Your task to perform on an android device: refresh tabs in the chrome app Image 0: 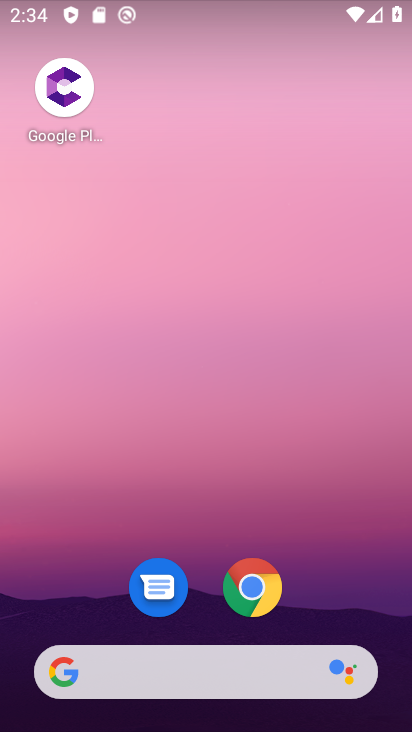
Step 0: click (262, 602)
Your task to perform on an android device: refresh tabs in the chrome app Image 1: 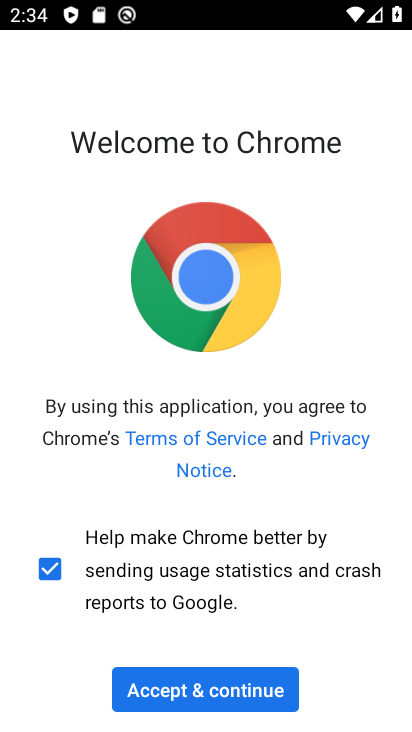
Step 1: click (233, 710)
Your task to perform on an android device: refresh tabs in the chrome app Image 2: 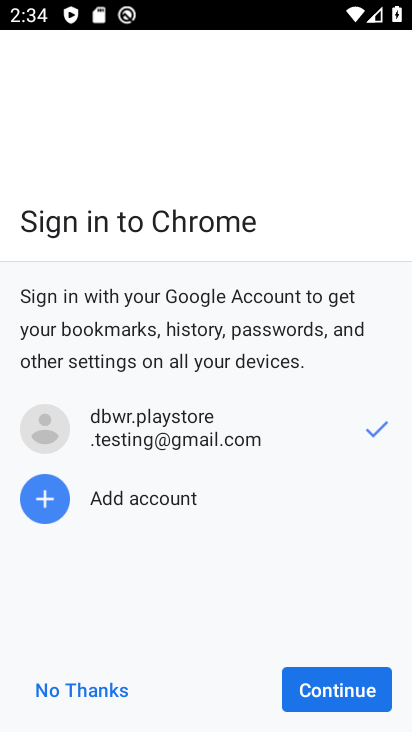
Step 2: click (315, 679)
Your task to perform on an android device: refresh tabs in the chrome app Image 3: 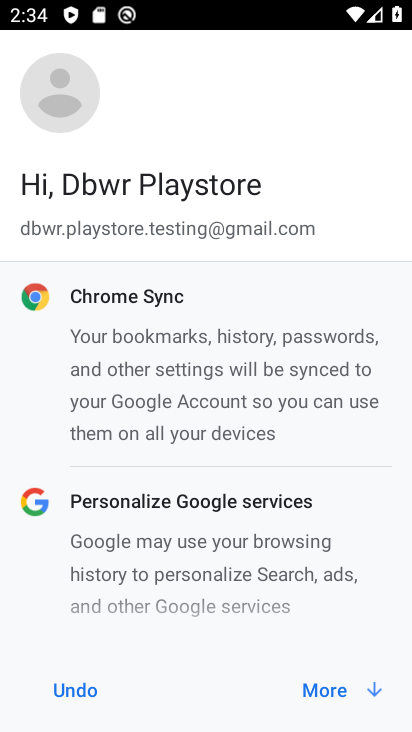
Step 3: click (335, 691)
Your task to perform on an android device: refresh tabs in the chrome app Image 4: 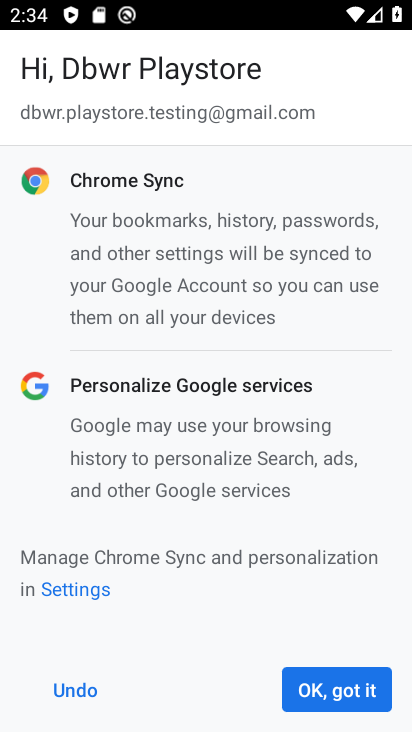
Step 4: click (335, 691)
Your task to perform on an android device: refresh tabs in the chrome app Image 5: 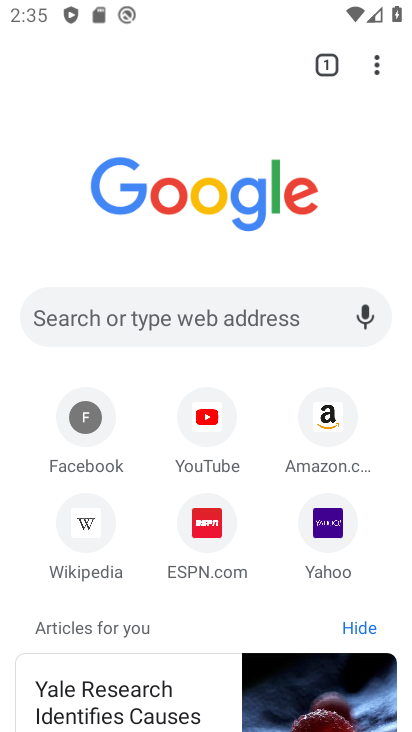
Step 5: click (377, 76)
Your task to perform on an android device: refresh tabs in the chrome app Image 6: 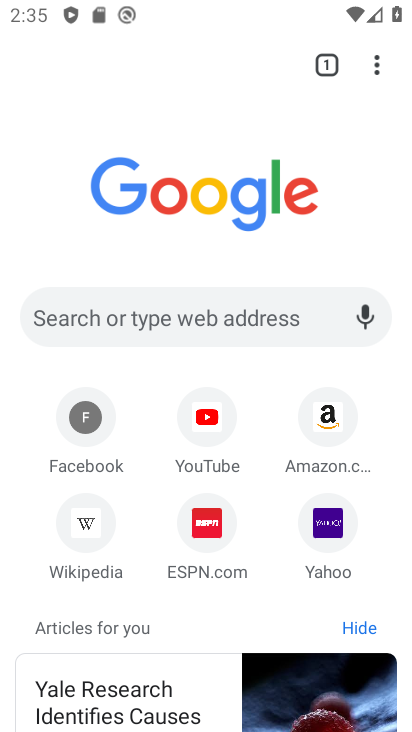
Step 6: task complete